Your task to perform on an android device: turn on wifi Image 0: 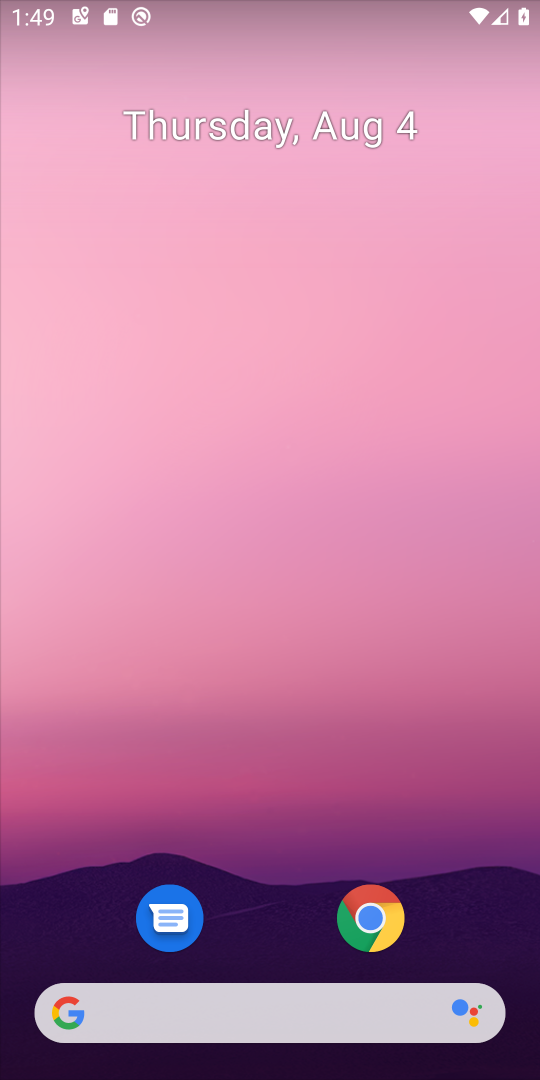
Step 0: drag from (291, 951) to (284, 275)
Your task to perform on an android device: turn on wifi Image 1: 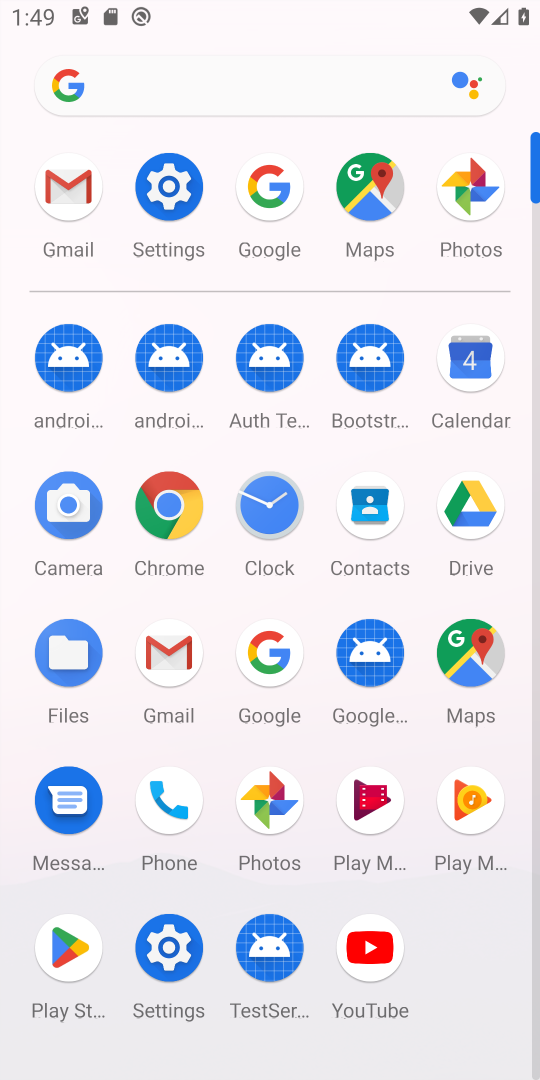
Step 1: click (162, 182)
Your task to perform on an android device: turn on wifi Image 2: 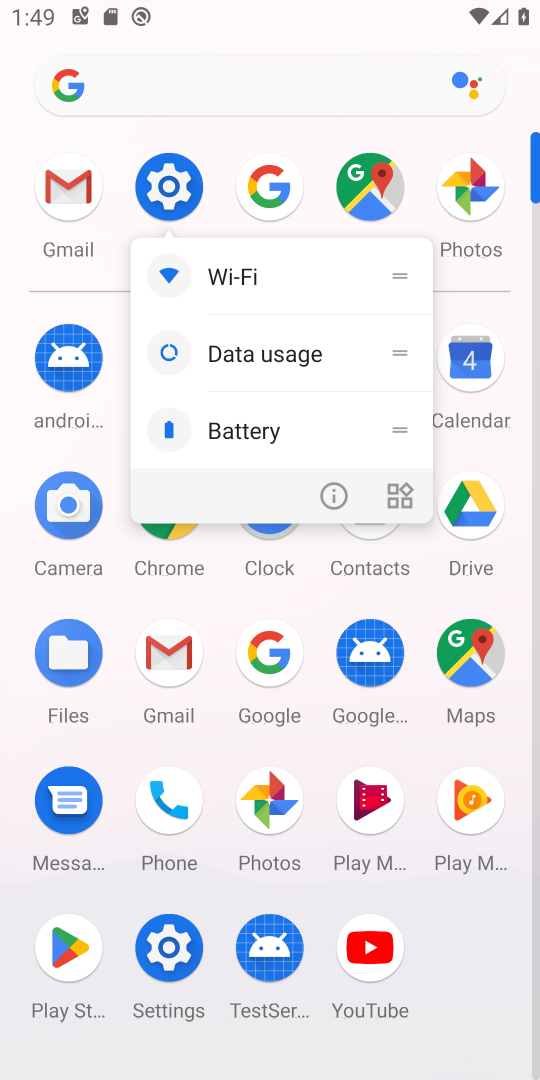
Step 2: click (173, 165)
Your task to perform on an android device: turn on wifi Image 3: 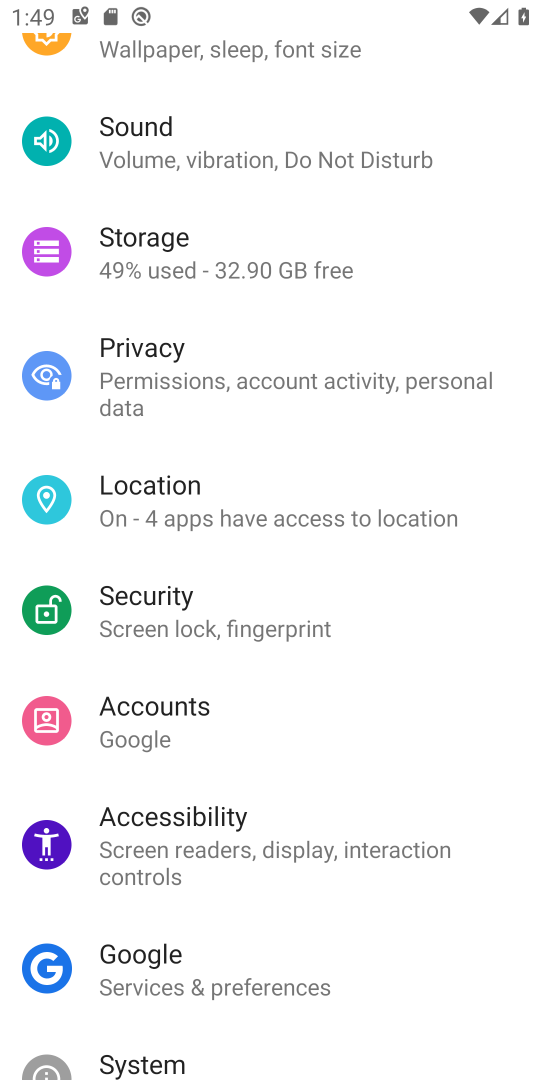
Step 3: drag from (173, 165) to (268, 655)
Your task to perform on an android device: turn on wifi Image 4: 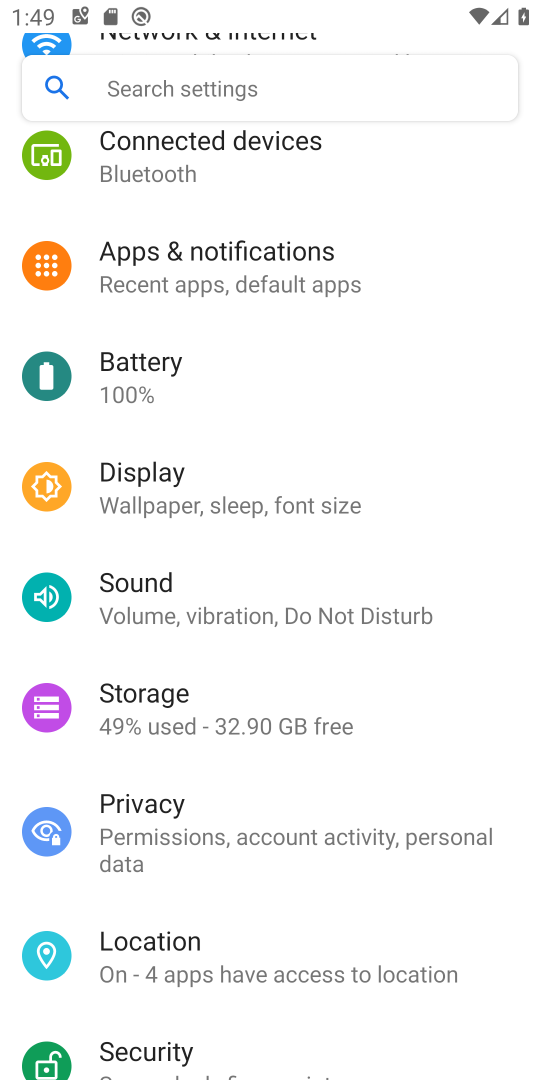
Step 4: drag from (221, 286) to (269, 555)
Your task to perform on an android device: turn on wifi Image 5: 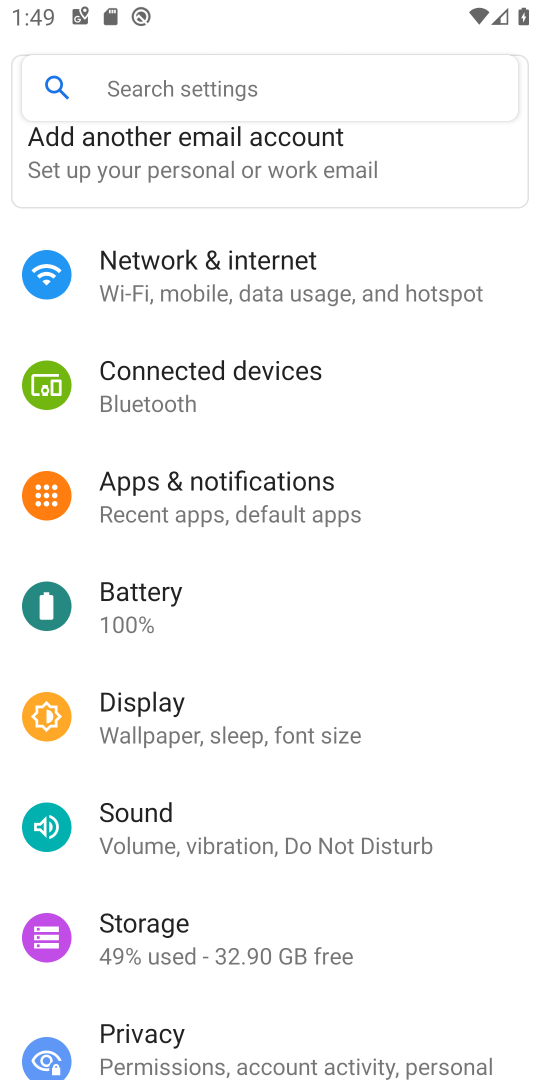
Step 5: click (202, 269)
Your task to perform on an android device: turn on wifi Image 6: 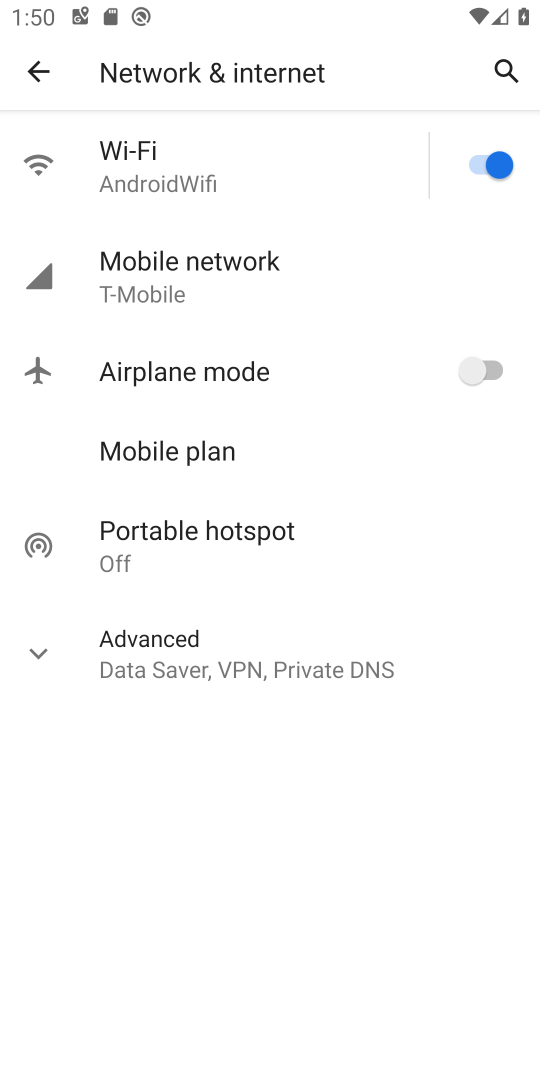
Step 6: task complete